Your task to perform on an android device: turn off sleep mode Image 0: 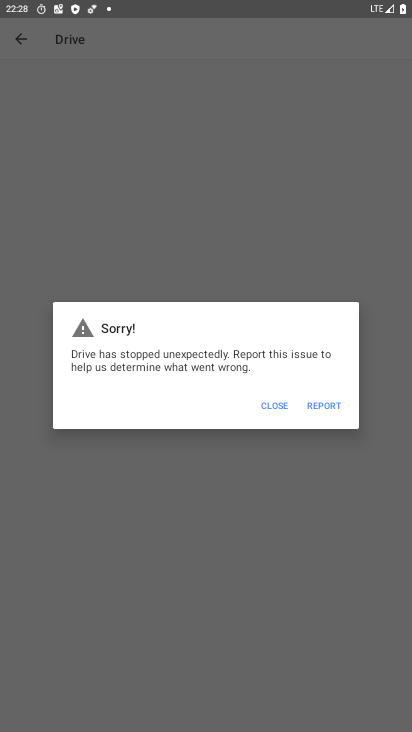
Step 0: press home button
Your task to perform on an android device: turn off sleep mode Image 1: 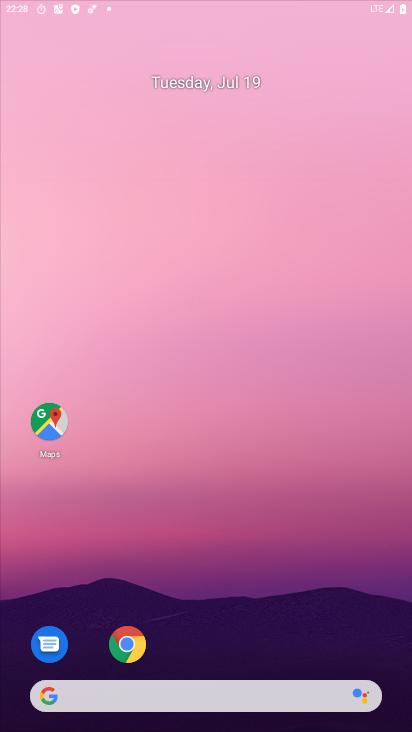
Step 1: drag from (366, 534) to (348, 86)
Your task to perform on an android device: turn off sleep mode Image 2: 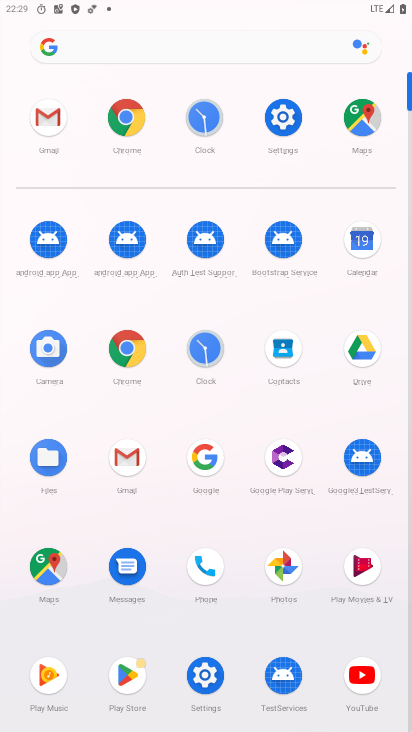
Step 2: click (228, 680)
Your task to perform on an android device: turn off sleep mode Image 3: 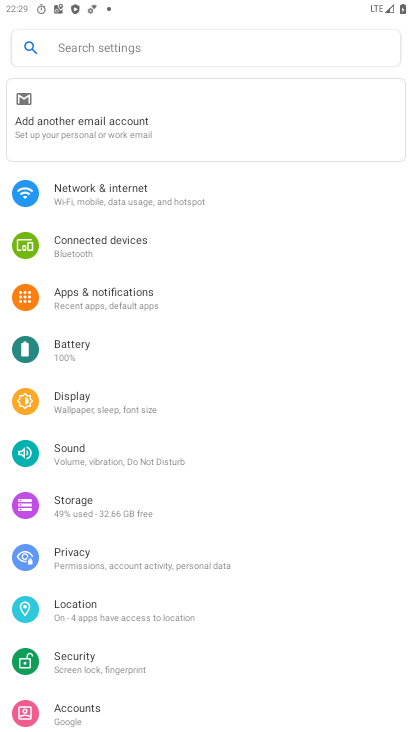
Step 3: click (48, 417)
Your task to perform on an android device: turn off sleep mode Image 4: 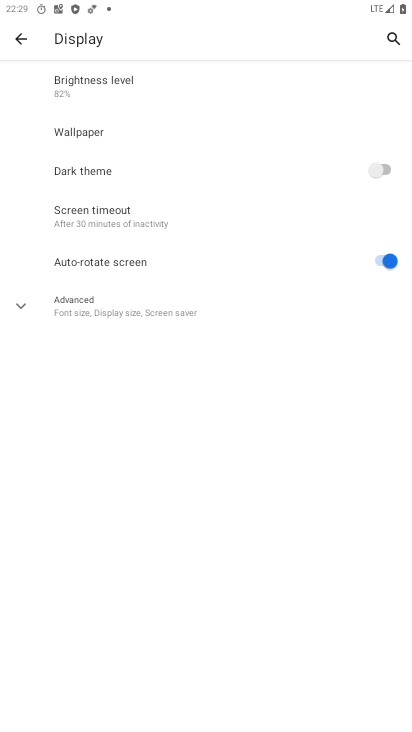
Step 4: task complete